Your task to perform on an android device: add a label to a message in the gmail app Image 0: 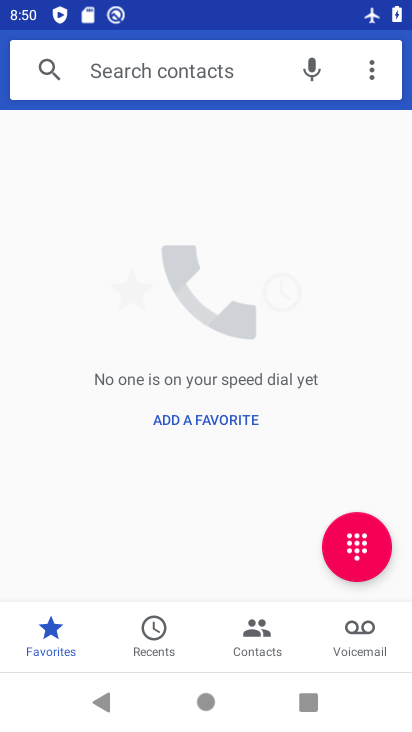
Step 0: press home button
Your task to perform on an android device: add a label to a message in the gmail app Image 1: 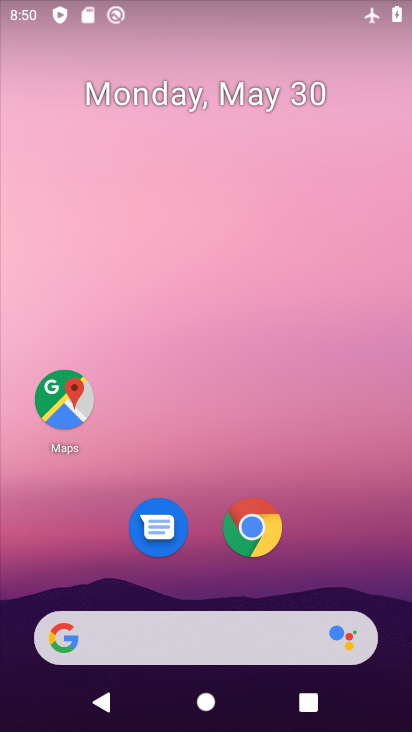
Step 1: drag from (259, 620) to (264, 59)
Your task to perform on an android device: add a label to a message in the gmail app Image 2: 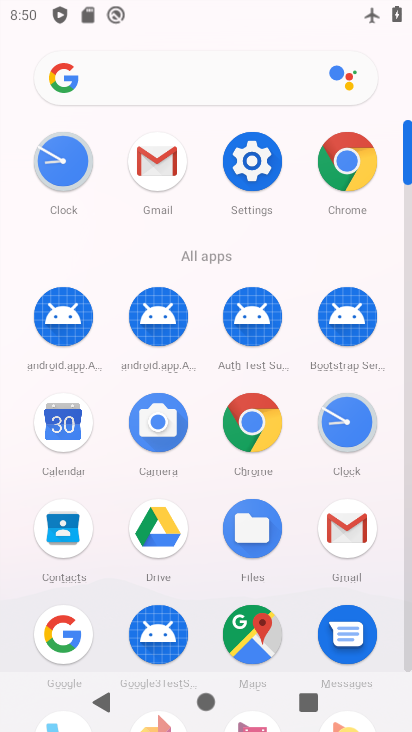
Step 2: click (344, 523)
Your task to perform on an android device: add a label to a message in the gmail app Image 3: 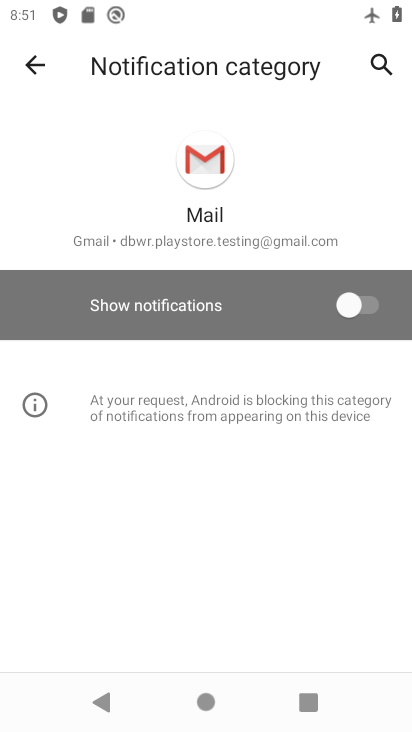
Step 3: task complete